Your task to perform on an android device: Open the calendar and show me this week's events? Image 0: 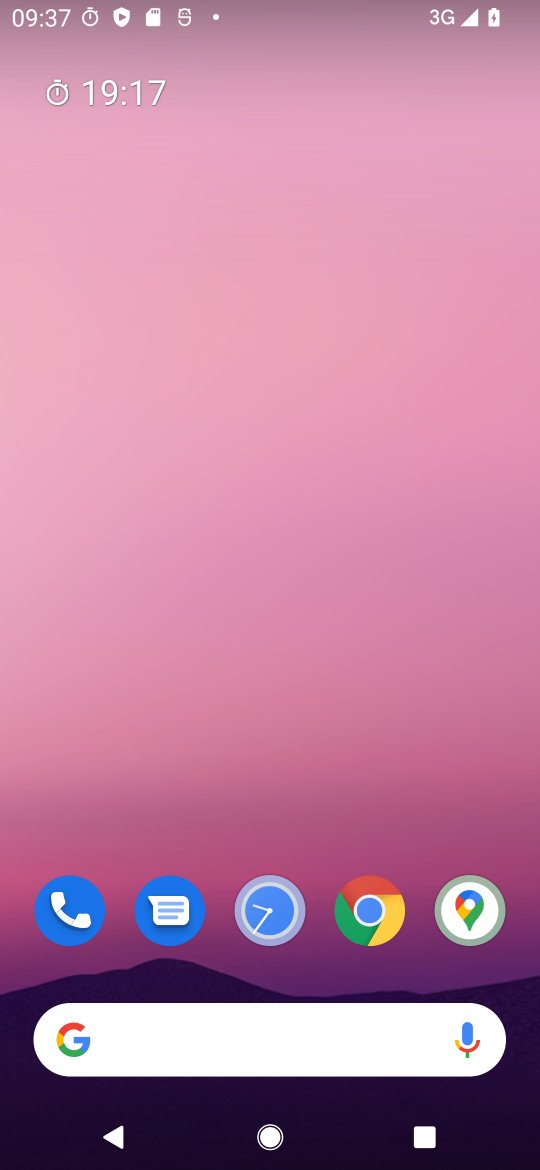
Step 0: drag from (364, 1017) to (393, 16)
Your task to perform on an android device: Open the calendar and show me this week's events? Image 1: 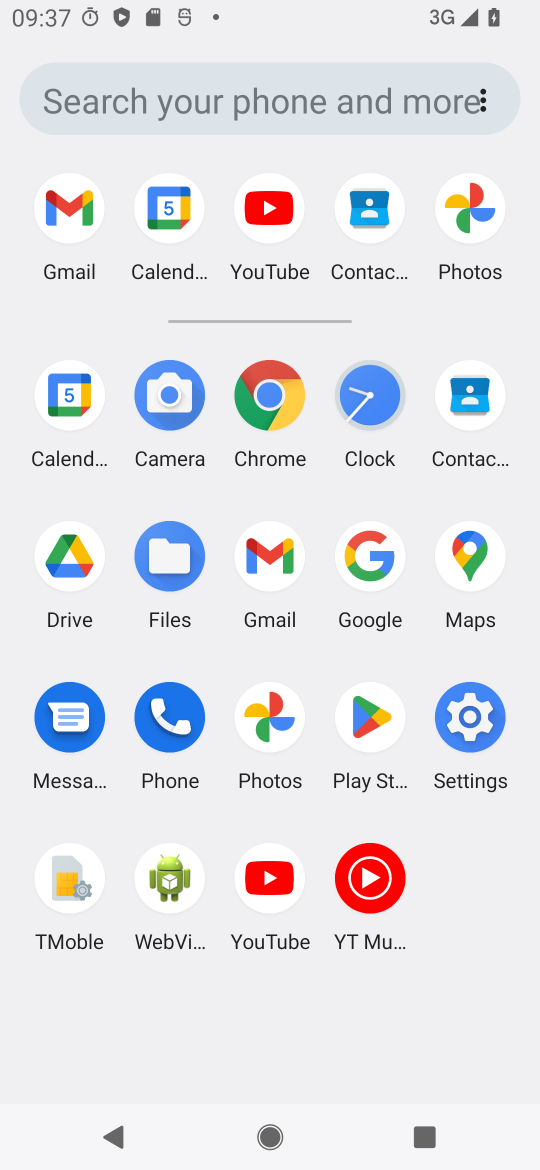
Step 1: click (62, 393)
Your task to perform on an android device: Open the calendar and show me this week's events? Image 2: 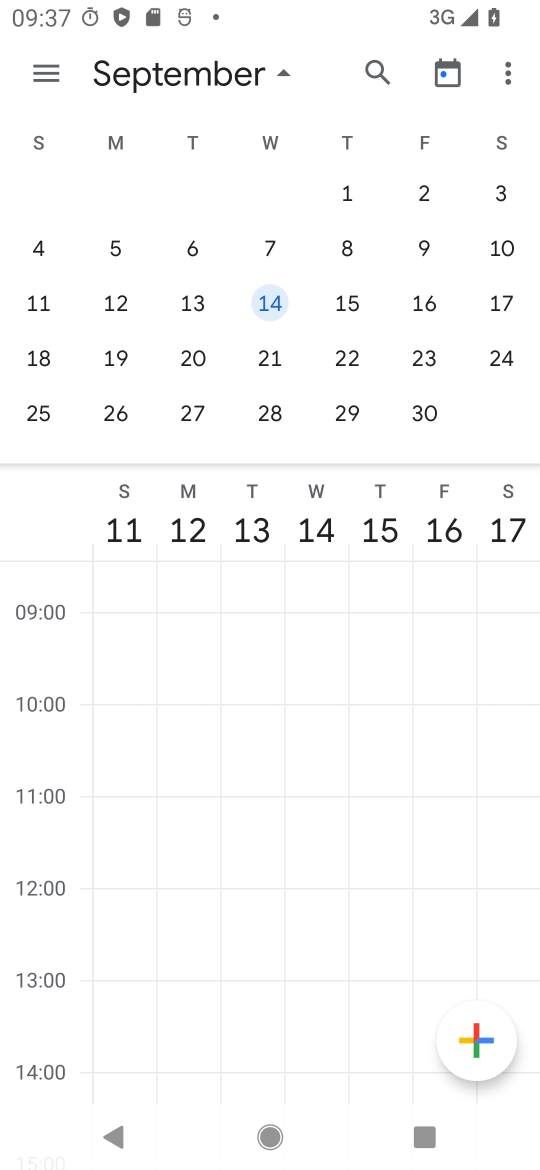
Step 2: drag from (91, 303) to (530, 283)
Your task to perform on an android device: Open the calendar and show me this week's events? Image 3: 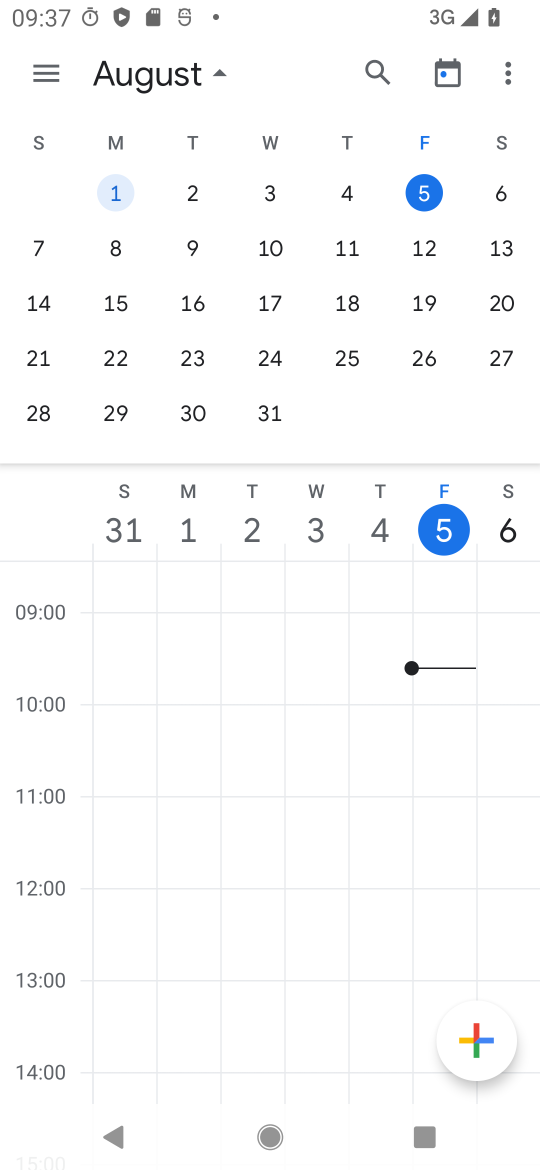
Step 3: click (503, 195)
Your task to perform on an android device: Open the calendar and show me this week's events? Image 4: 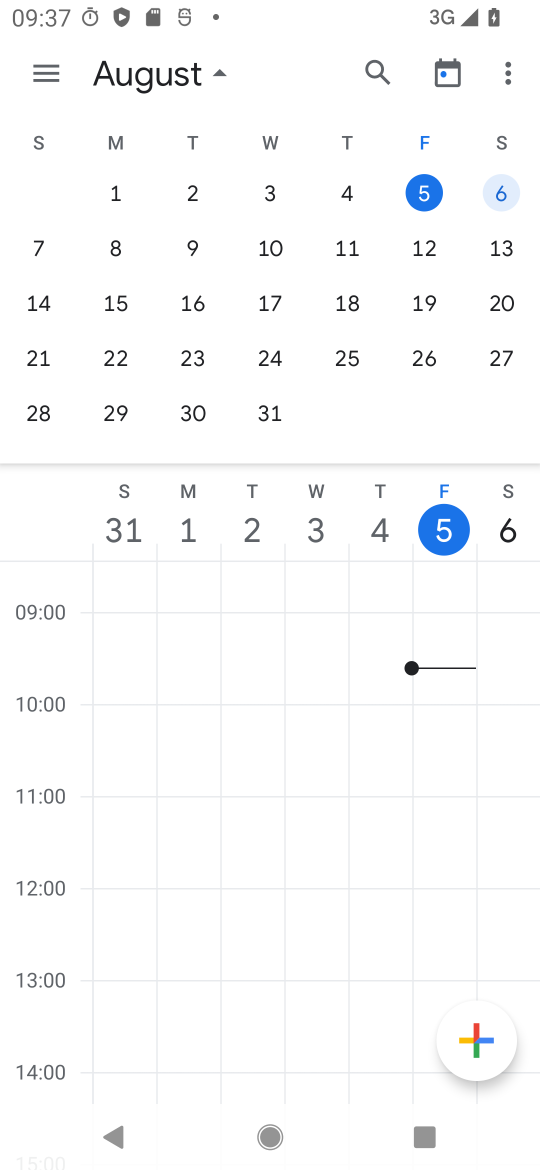
Step 4: task complete